Your task to perform on an android device: Go to notification settings Image 0: 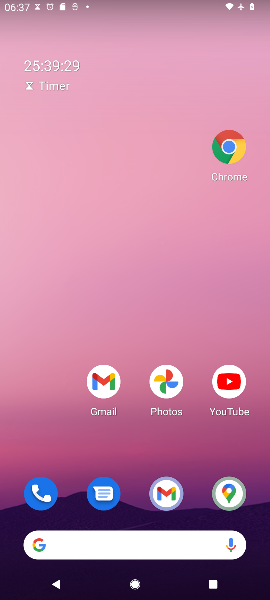
Step 0: press home button
Your task to perform on an android device: Go to notification settings Image 1: 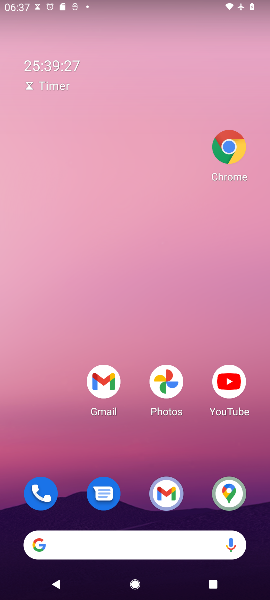
Step 1: drag from (135, 514) to (226, 90)
Your task to perform on an android device: Go to notification settings Image 2: 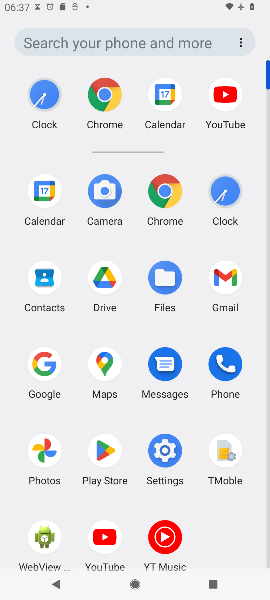
Step 2: click (153, 452)
Your task to perform on an android device: Go to notification settings Image 3: 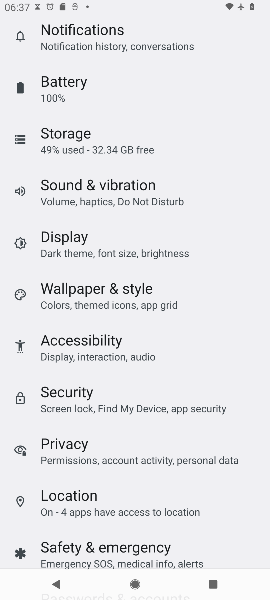
Step 3: drag from (120, 120) to (116, 483)
Your task to perform on an android device: Go to notification settings Image 4: 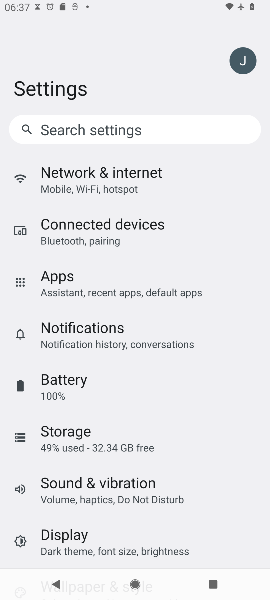
Step 4: click (69, 331)
Your task to perform on an android device: Go to notification settings Image 5: 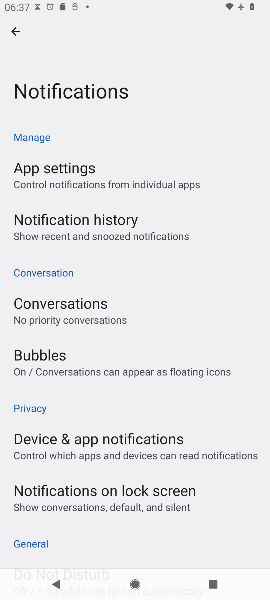
Step 5: task complete